Your task to perform on an android device: Is it going to rain tomorrow? Image 0: 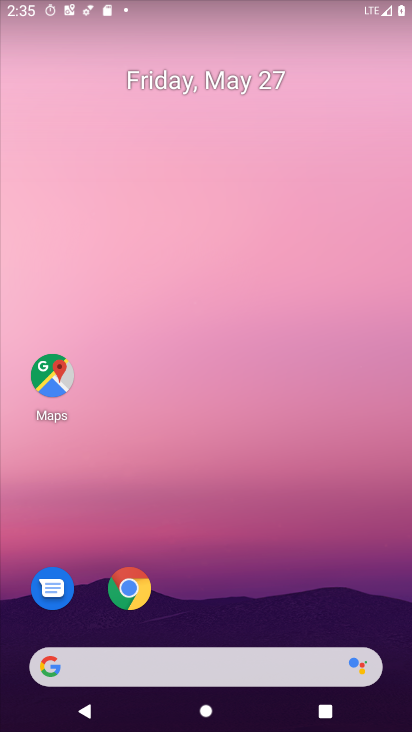
Step 0: click (108, 664)
Your task to perform on an android device: Is it going to rain tomorrow? Image 1: 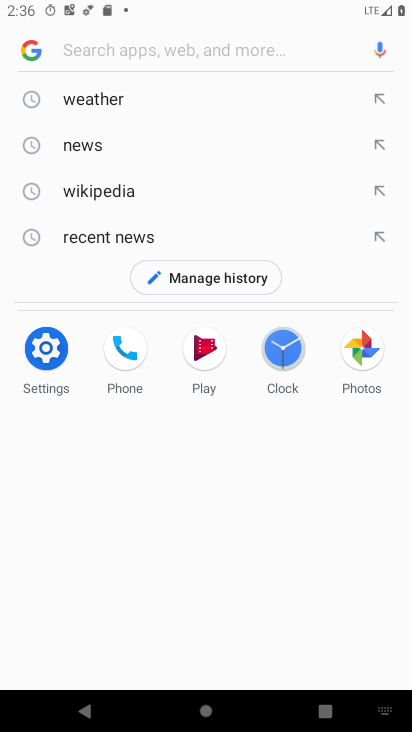
Step 1: type "is it going to rain tomorrow"
Your task to perform on an android device: Is it going to rain tomorrow? Image 2: 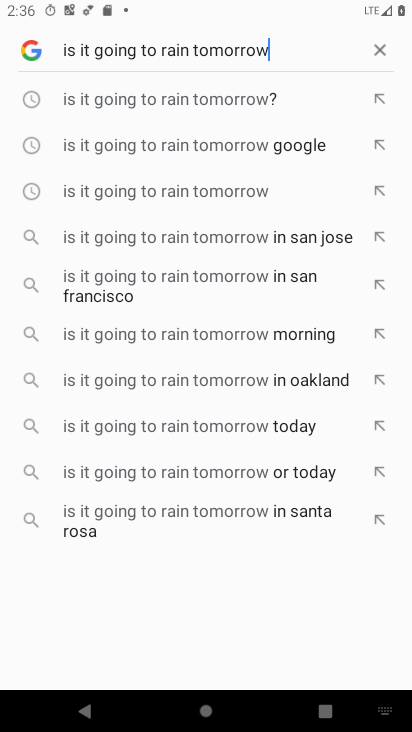
Step 2: click (196, 95)
Your task to perform on an android device: Is it going to rain tomorrow? Image 3: 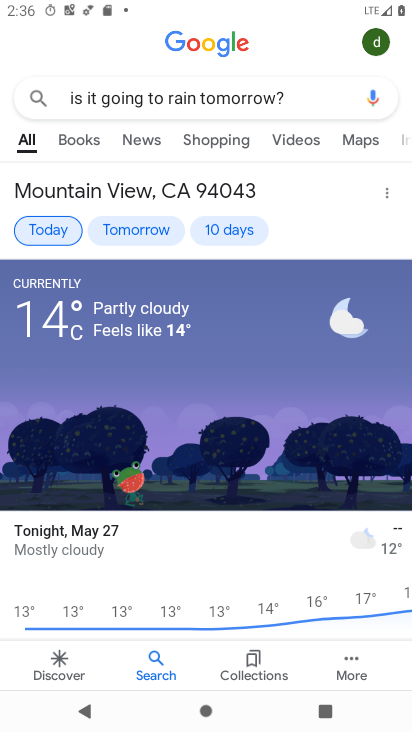
Step 3: task complete